Your task to perform on an android device: Open the stopwatch Image 0: 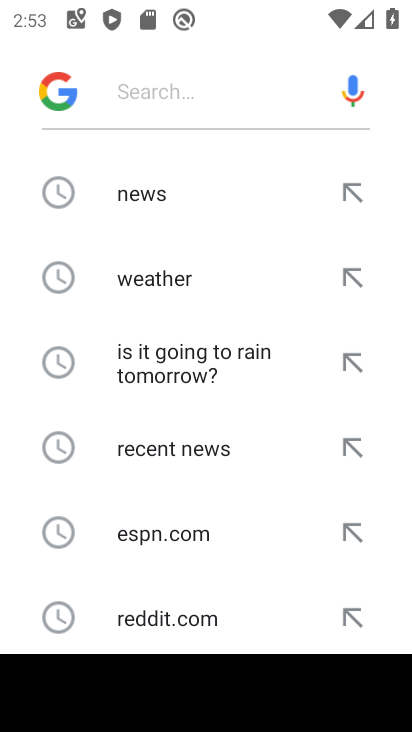
Step 0: press home button
Your task to perform on an android device: Open the stopwatch Image 1: 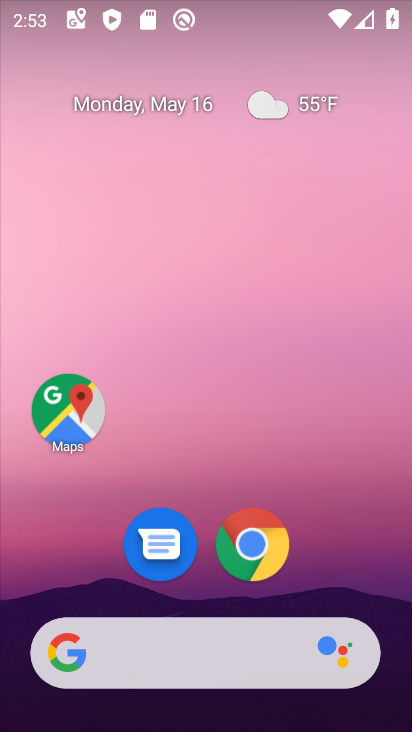
Step 1: drag from (357, 517) to (306, 88)
Your task to perform on an android device: Open the stopwatch Image 2: 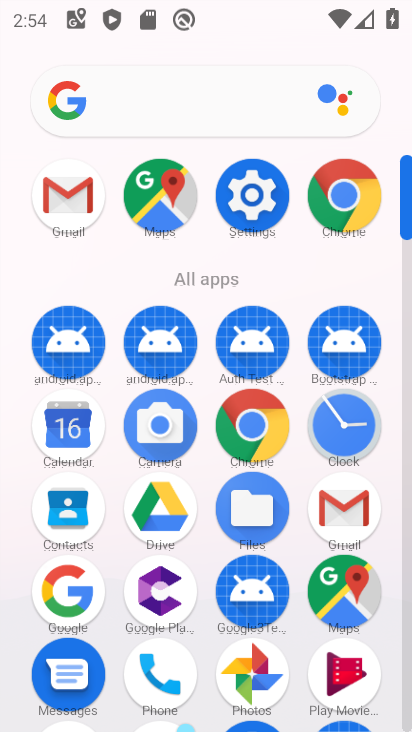
Step 2: click (350, 433)
Your task to perform on an android device: Open the stopwatch Image 3: 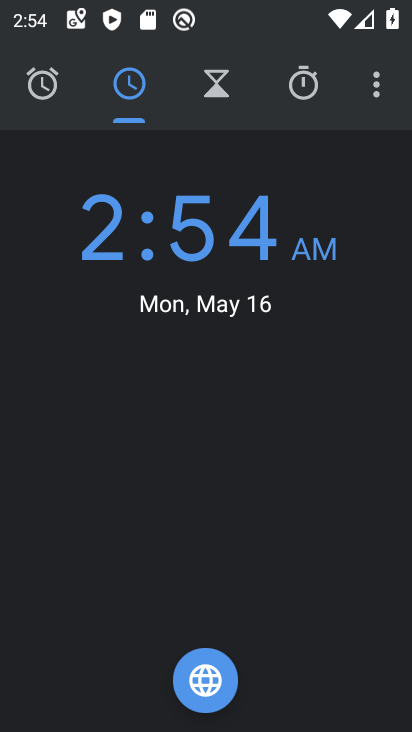
Step 3: click (299, 103)
Your task to perform on an android device: Open the stopwatch Image 4: 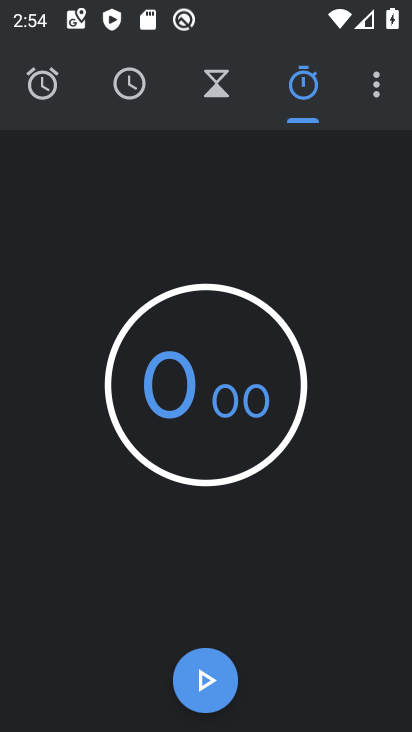
Step 4: click (217, 681)
Your task to perform on an android device: Open the stopwatch Image 5: 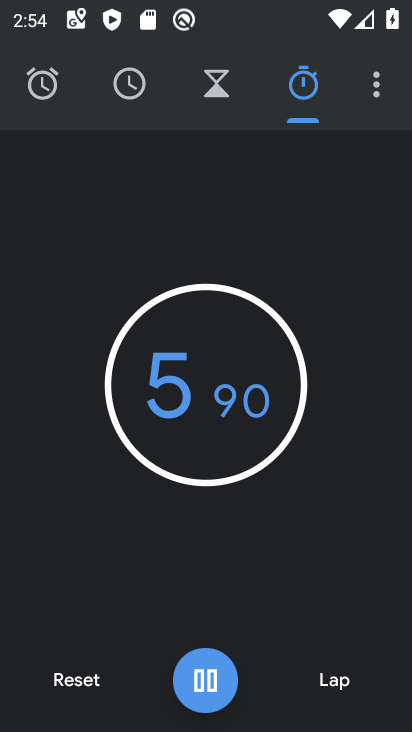
Step 5: task complete